Your task to perform on an android device: Go to settings Image 0: 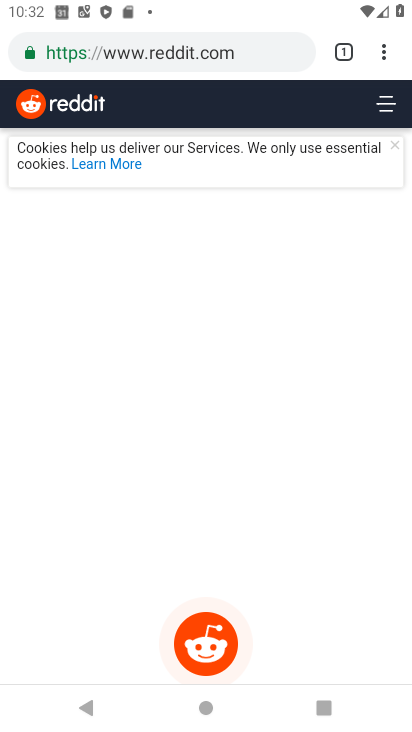
Step 0: press home button
Your task to perform on an android device: Go to settings Image 1: 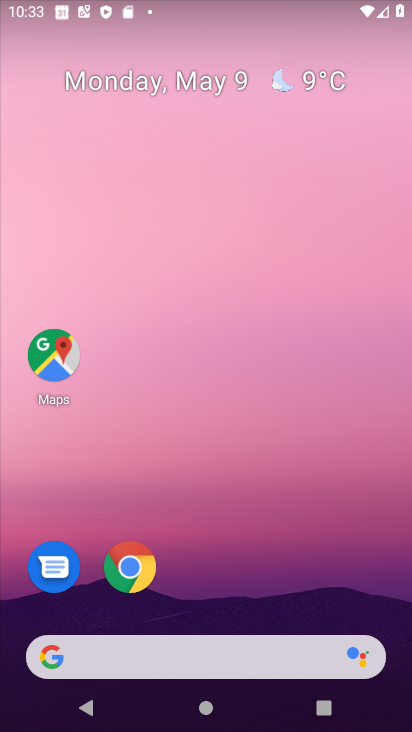
Step 1: drag from (202, 608) to (214, 121)
Your task to perform on an android device: Go to settings Image 2: 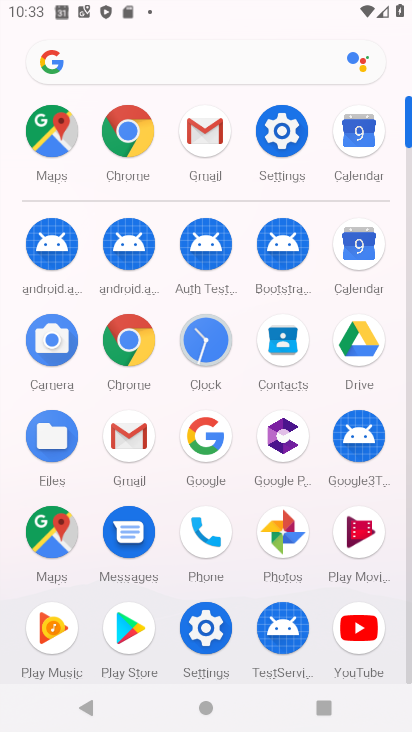
Step 2: click (274, 126)
Your task to perform on an android device: Go to settings Image 3: 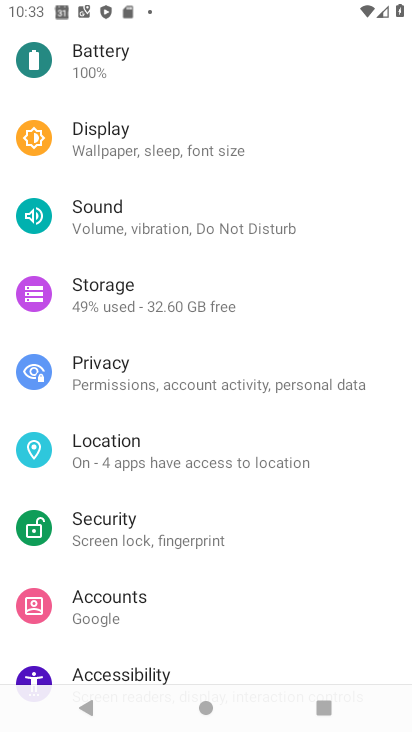
Step 3: task complete